Your task to perform on an android device: turn off location Image 0: 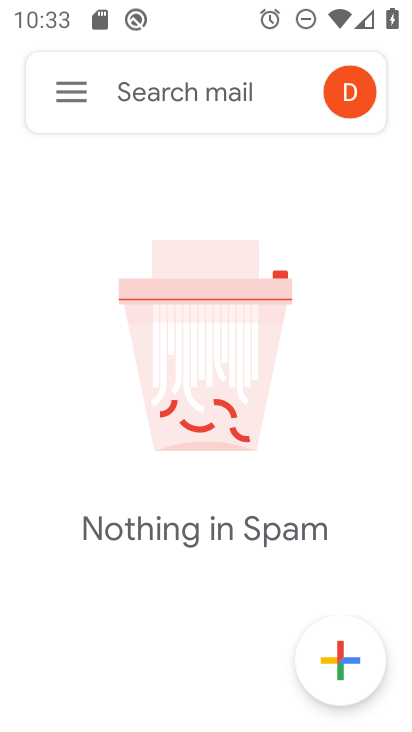
Step 0: press home button
Your task to perform on an android device: turn off location Image 1: 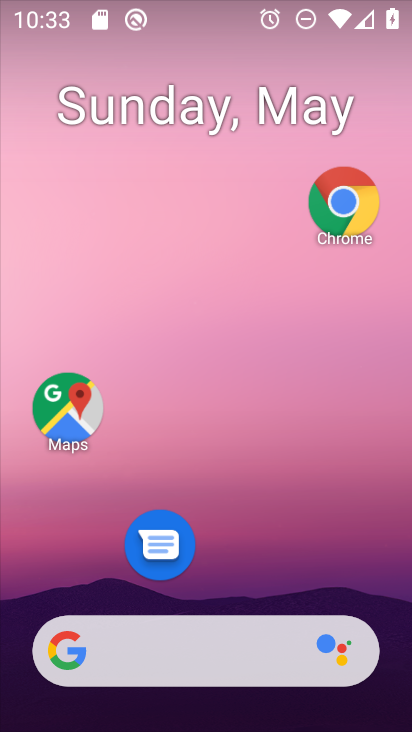
Step 1: drag from (282, 552) to (248, 43)
Your task to perform on an android device: turn off location Image 2: 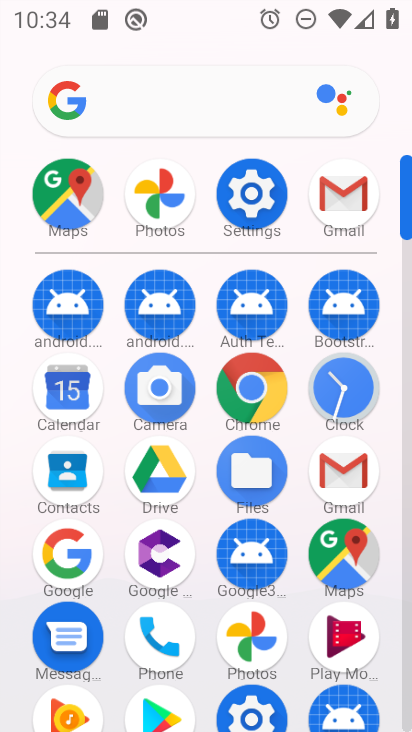
Step 2: click (261, 718)
Your task to perform on an android device: turn off location Image 3: 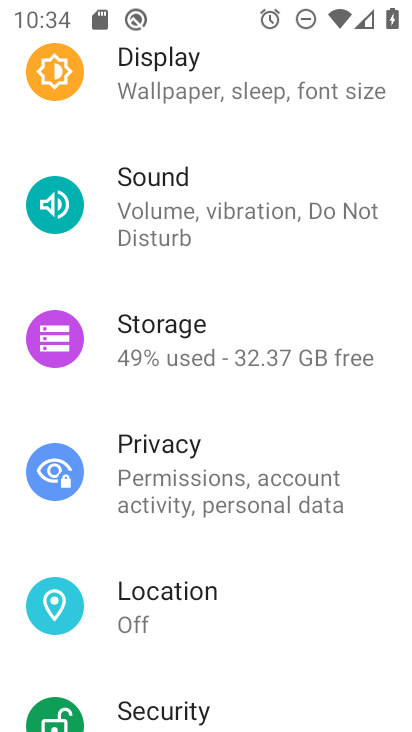
Step 3: click (169, 625)
Your task to perform on an android device: turn off location Image 4: 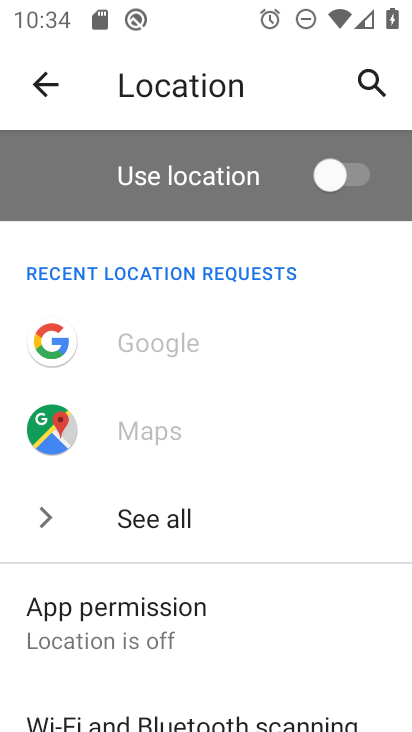
Step 4: task complete